Your task to perform on an android device: Go to display settings Image 0: 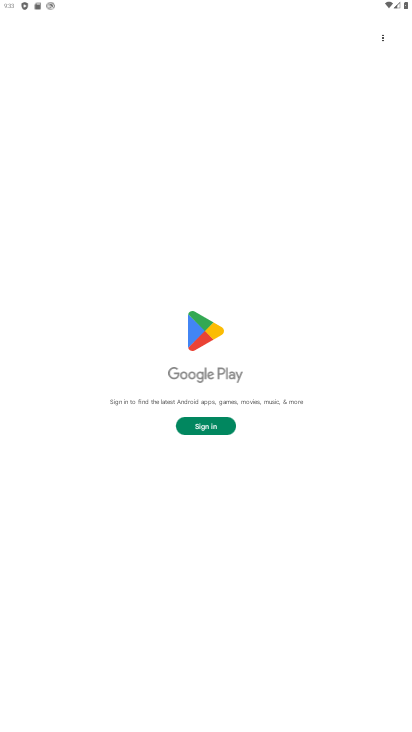
Step 0: press home button
Your task to perform on an android device: Go to display settings Image 1: 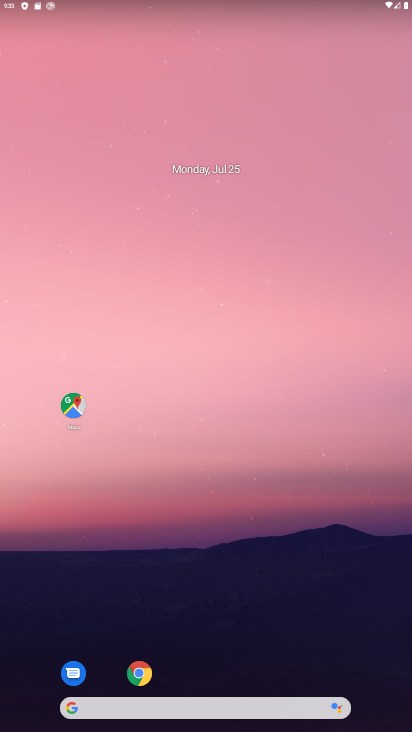
Step 1: drag from (252, 633) to (307, 134)
Your task to perform on an android device: Go to display settings Image 2: 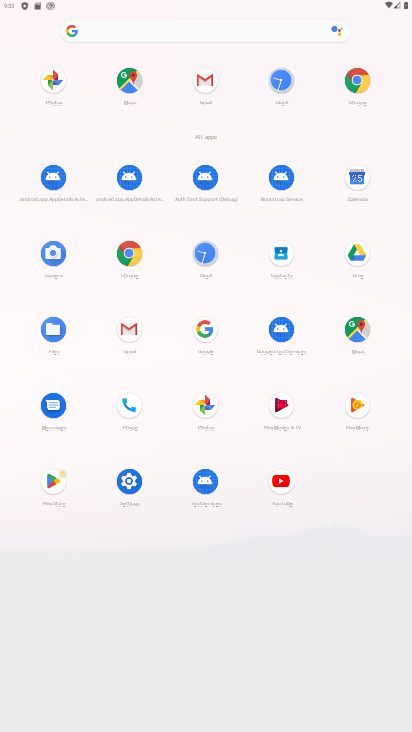
Step 2: click (133, 476)
Your task to perform on an android device: Go to display settings Image 3: 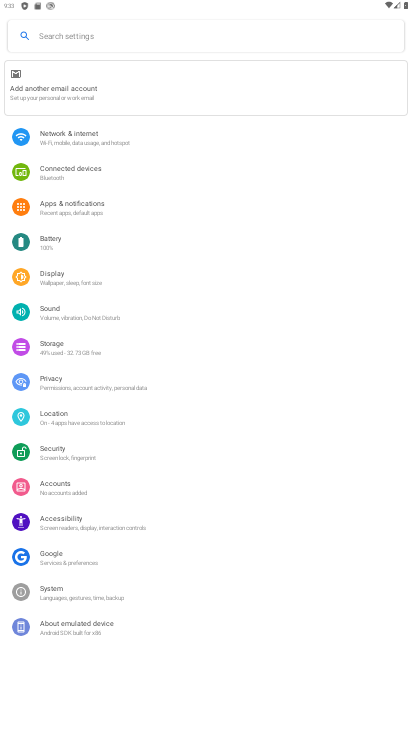
Step 3: click (56, 276)
Your task to perform on an android device: Go to display settings Image 4: 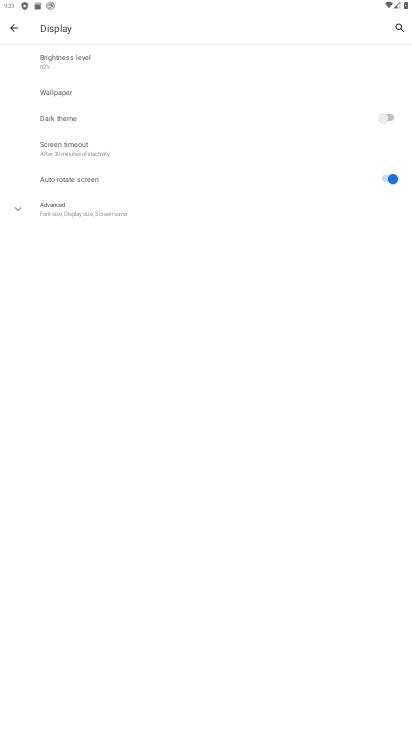
Step 4: task complete